Your task to perform on an android device: install app "NewsBreak: Local News & Alerts" Image 0: 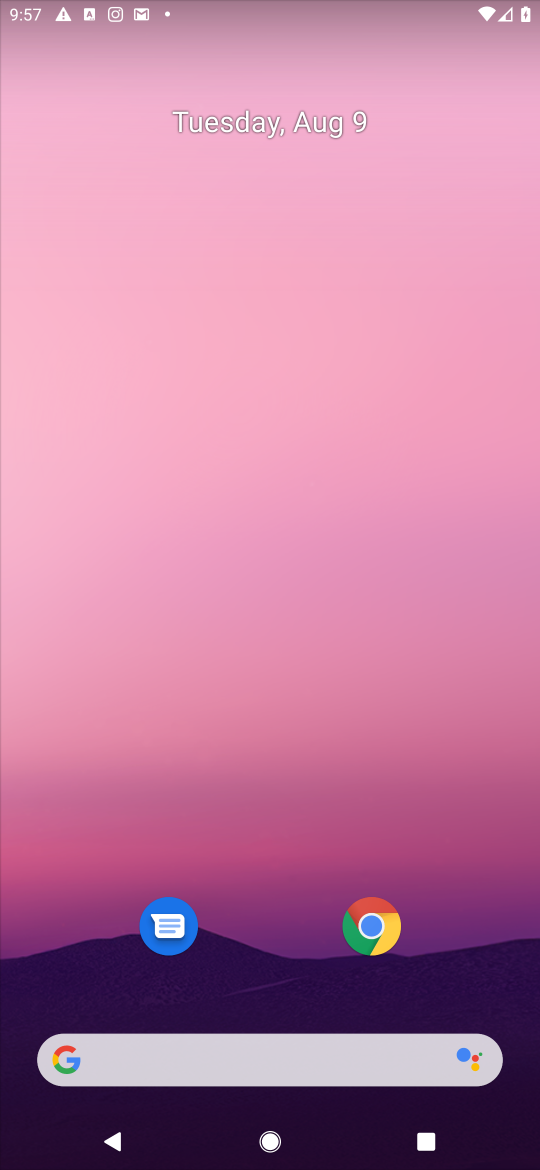
Step 0: press home button
Your task to perform on an android device: install app "NewsBreak: Local News & Alerts" Image 1: 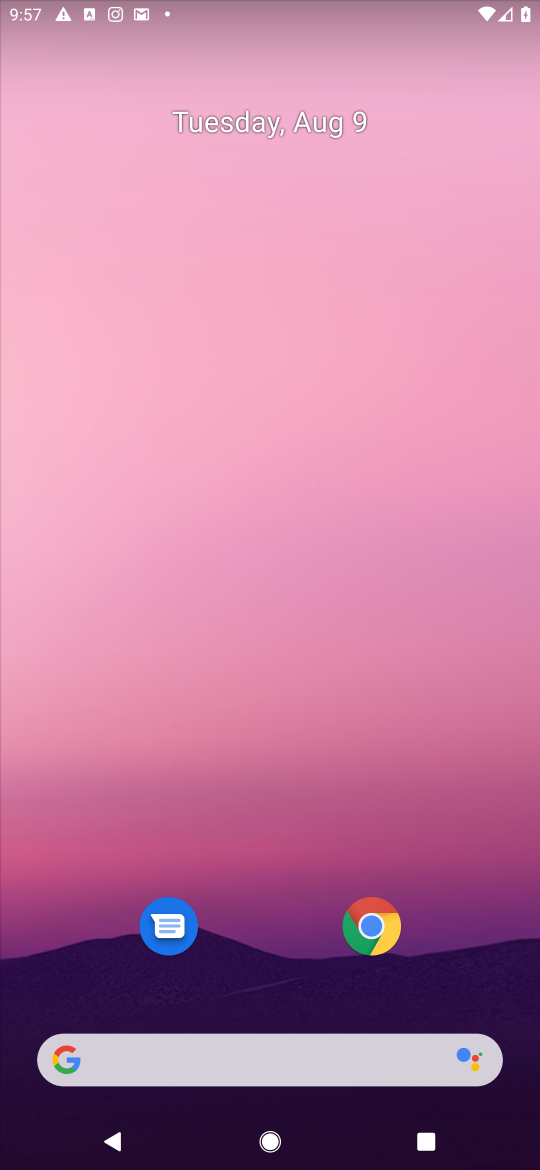
Step 1: drag from (287, 999) to (325, 431)
Your task to perform on an android device: install app "NewsBreak: Local News & Alerts" Image 2: 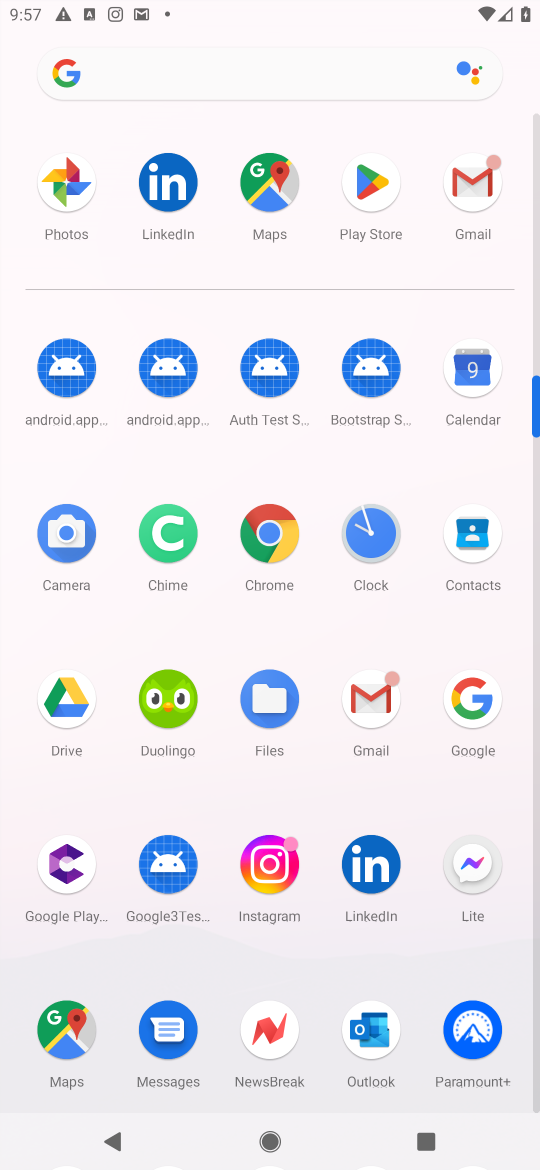
Step 2: click (391, 191)
Your task to perform on an android device: install app "NewsBreak: Local News & Alerts" Image 3: 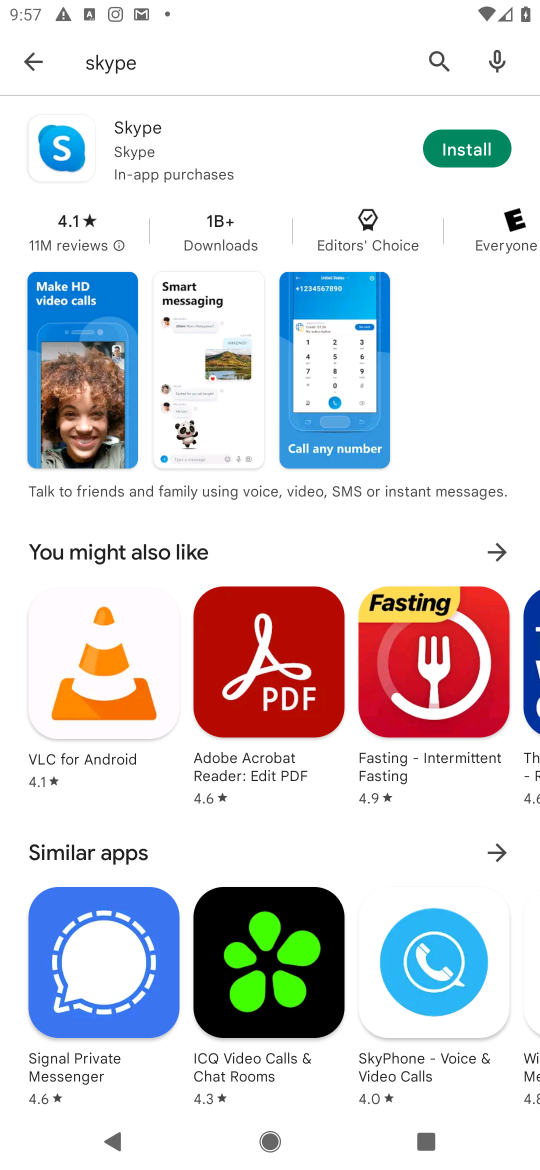
Step 3: click (445, 150)
Your task to perform on an android device: install app "NewsBreak: Local News & Alerts" Image 4: 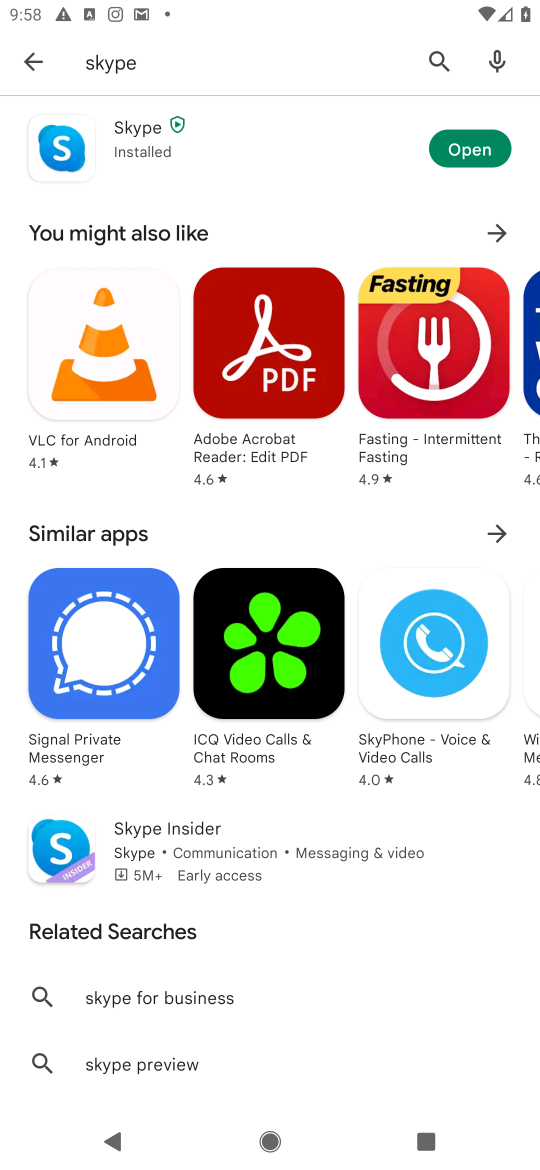
Step 4: task complete